Your task to perform on an android device: When is my next appointment? Image 0: 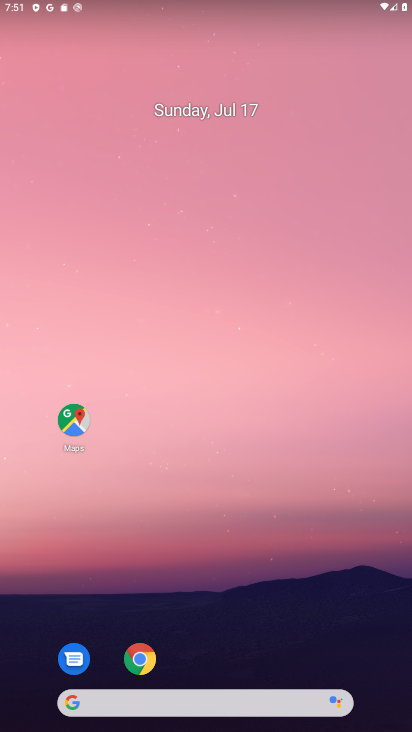
Step 0: drag from (243, 431) to (154, 46)
Your task to perform on an android device: When is my next appointment? Image 1: 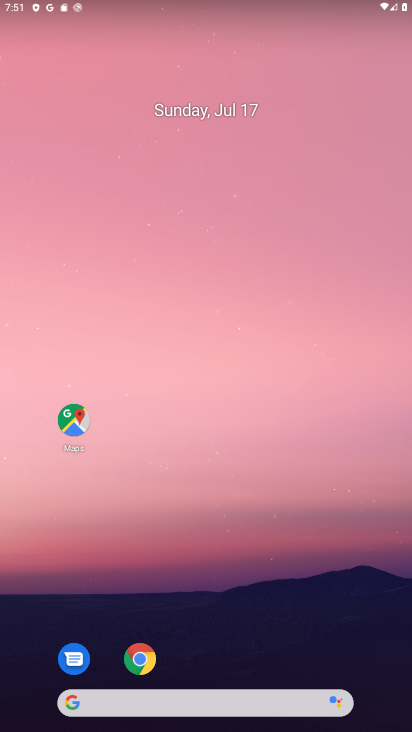
Step 1: drag from (233, 575) to (194, 20)
Your task to perform on an android device: When is my next appointment? Image 2: 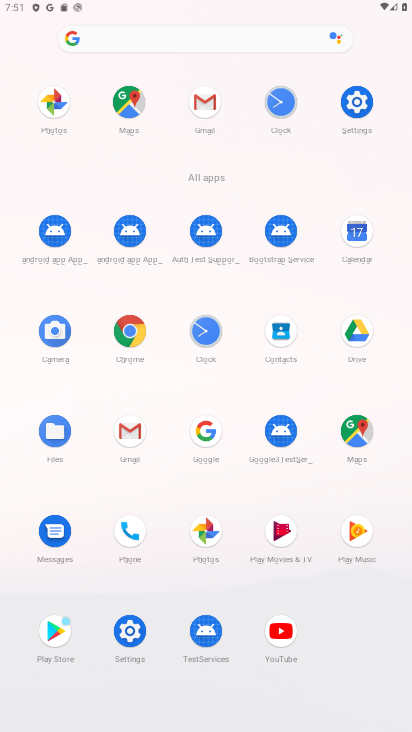
Step 2: click (210, 11)
Your task to perform on an android device: When is my next appointment? Image 3: 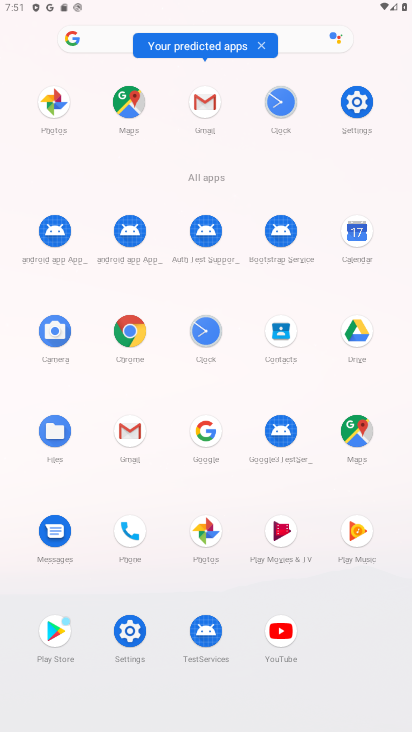
Step 3: click (363, 241)
Your task to perform on an android device: When is my next appointment? Image 4: 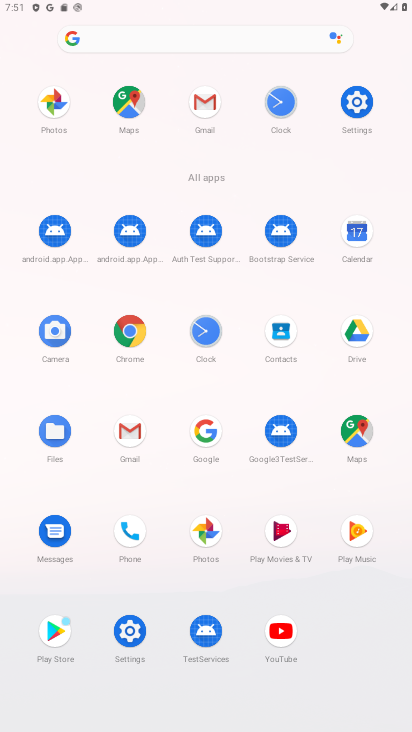
Step 4: click (361, 241)
Your task to perform on an android device: When is my next appointment? Image 5: 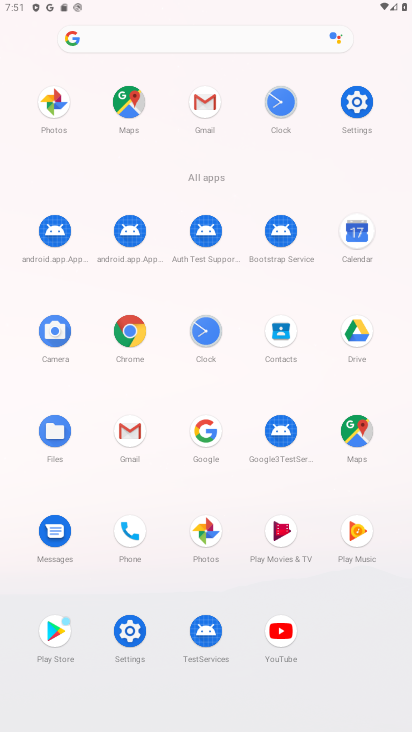
Step 5: drag from (359, 240) to (342, 197)
Your task to perform on an android device: When is my next appointment? Image 6: 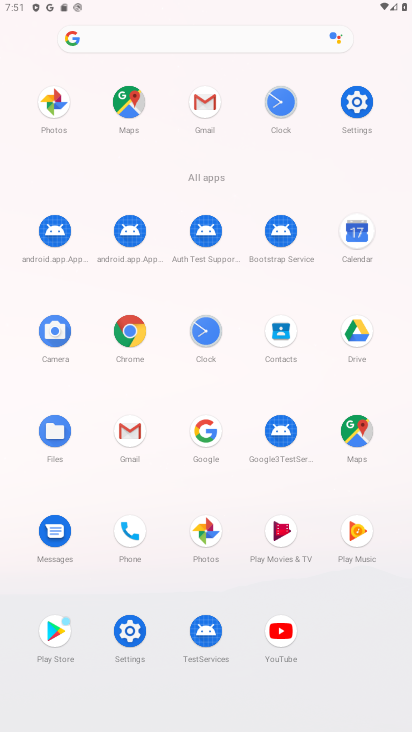
Step 6: click (352, 236)
Your task to perform on an android device: When is my next appointment? Image 7: 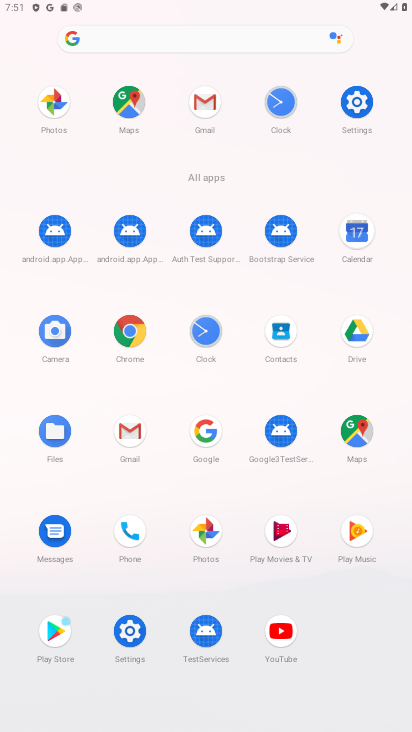
Step 7: click (352, 237)
Your task to perform on an android device: When is my next appointment? Image 8: 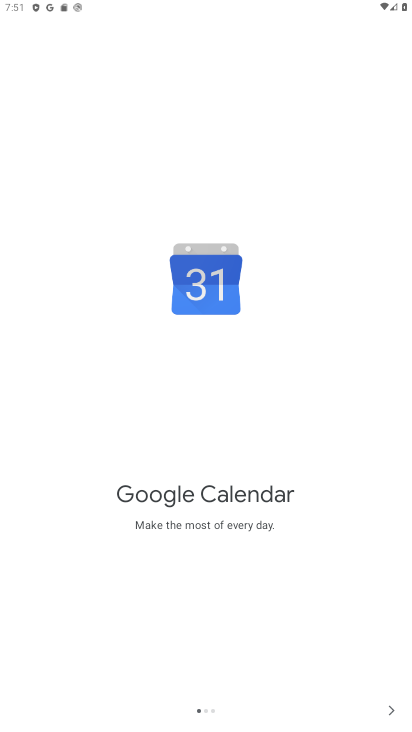
Step 8: click (397, 711)
Your task to perform on an android device: When is my next appointment? Image 9: 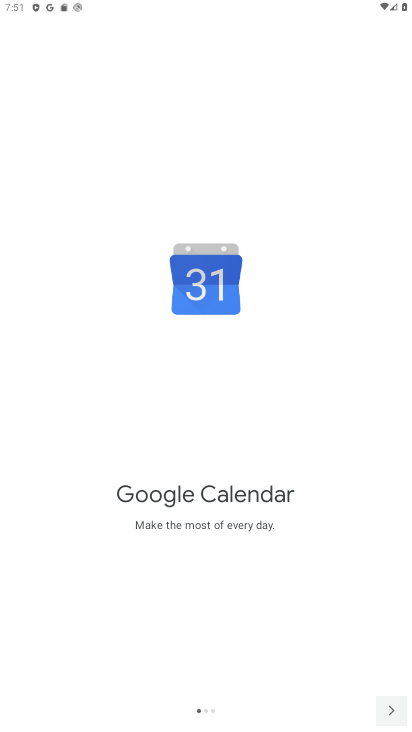
Step 9: click (397, 711)
Your task to perform on an android device: When is my next appointment? Image 10: 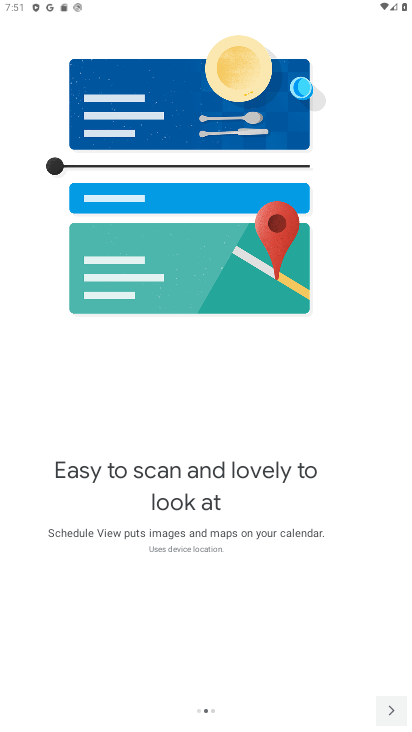
Step 10: click (389, 713)
Your task to perform on an android device: When is my next appointment? Image 11: 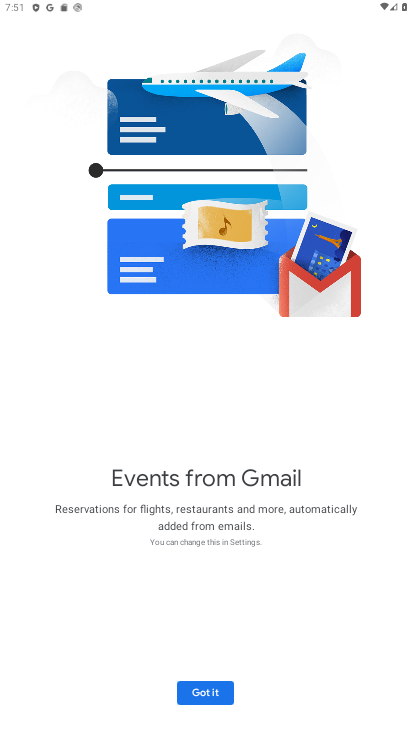
Step 11: click (389, 718)
Your task to perform on an android device: When is my next appointment? Image 12: 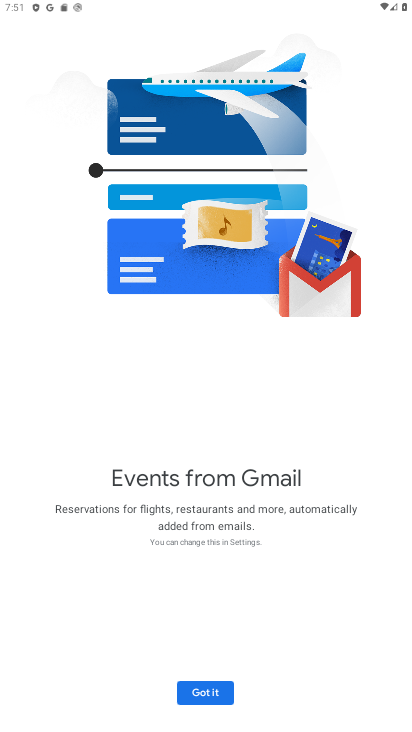
Step 12: click (212, 689)
Your task to perform on an android device: When is my next appointment? Image 13: 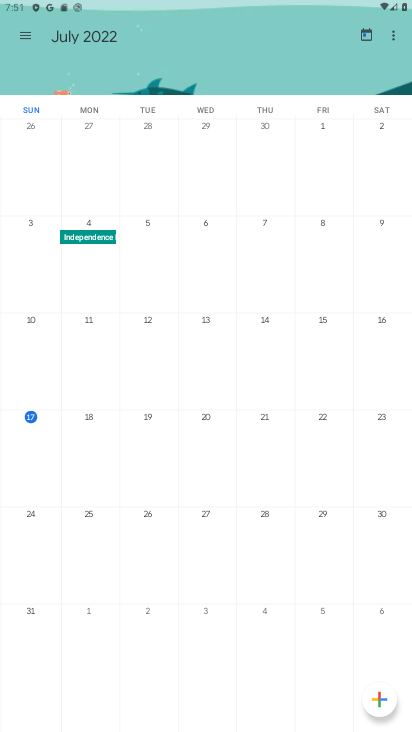
Step 13: task complete